Your task to perform on an android device: set default search engine in the chrome app Image 0: 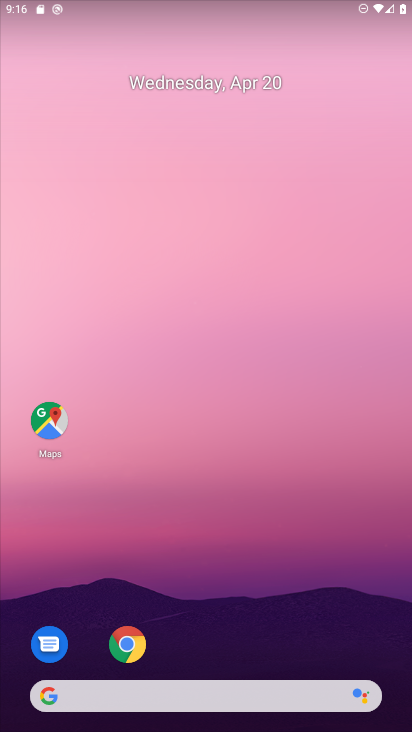
Step 0: drag from (300, 485) to (288, 292)
Your task to perform on an android device: set default search engine in the chrome app Image 1: 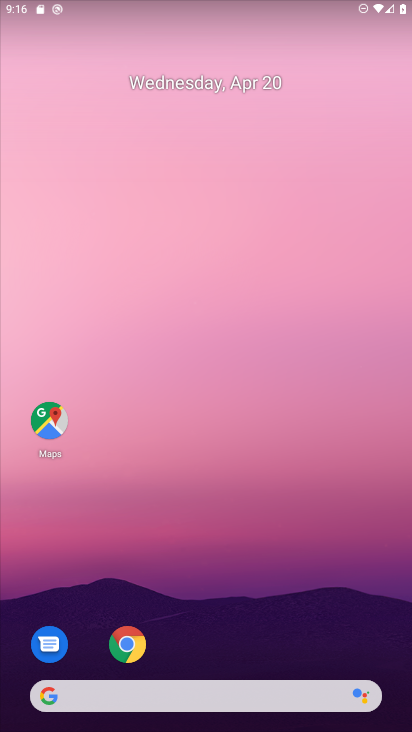
Step 1: drag from (315, 635) to (279, 76)
Your task to perform on an android device: set default search engine in the chrome app Image 2: 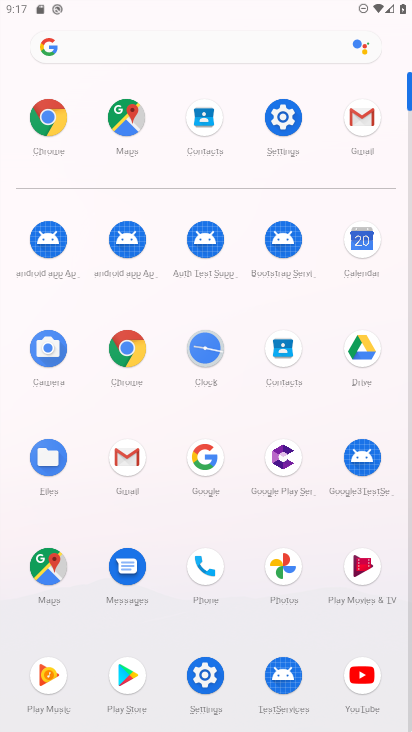
Step 2: click (134, 349)
Your task to perform on an android device: set default search engine in the chrome app Image 3: 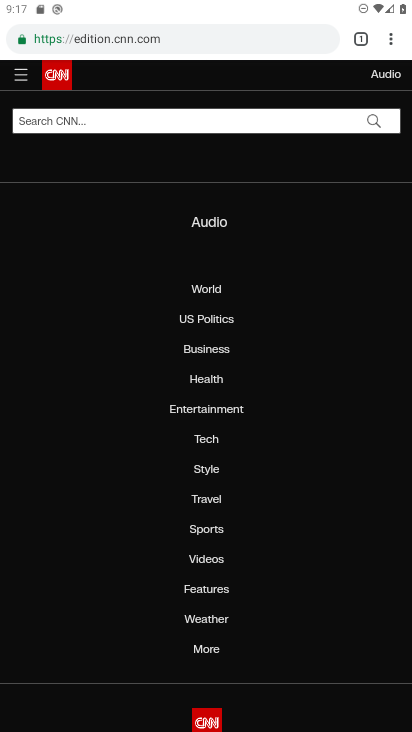
Step 3: press back button
Your task to perform on an android device: set default search engine in the chrome app Image 4: 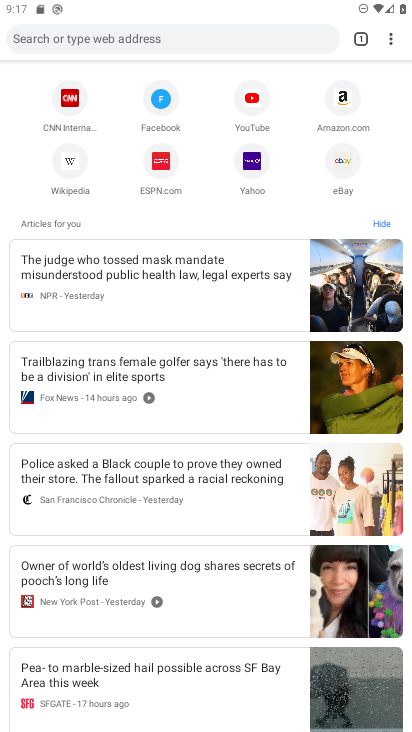
Step 4: click (392, 37)
Your task to perform on an android device: set default search engine in the chrome app Image 5: 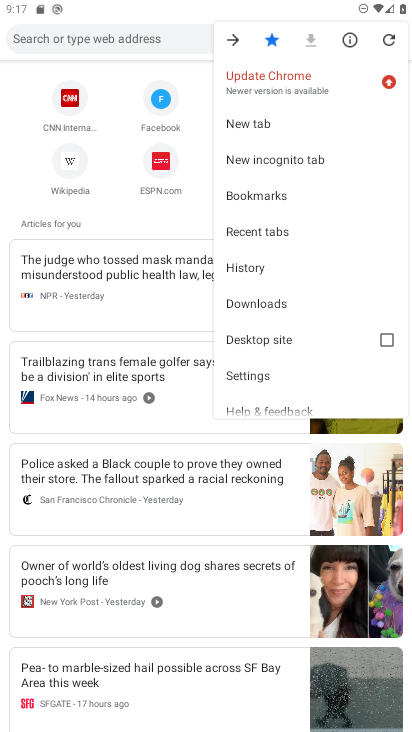
Step 5: click (275, 379)
Your task to perform on an android device: set default search engine in the chrome app Image 6: 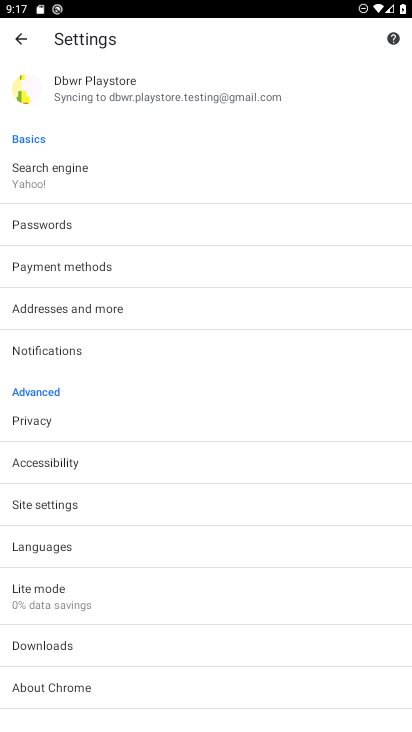
Step 6: click (56, 171)
Your task to perform on an android device: set default search engine in the chrome app Image 7: 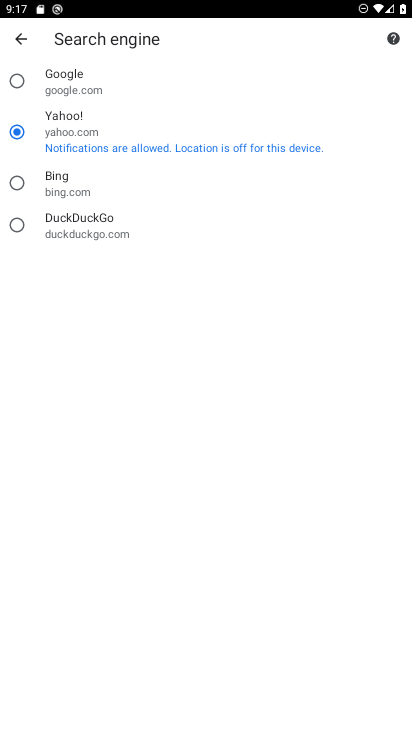
Step 7: click (85, 73)
Your task to perform on an android device: set default search engine in the chrome app Image 8: 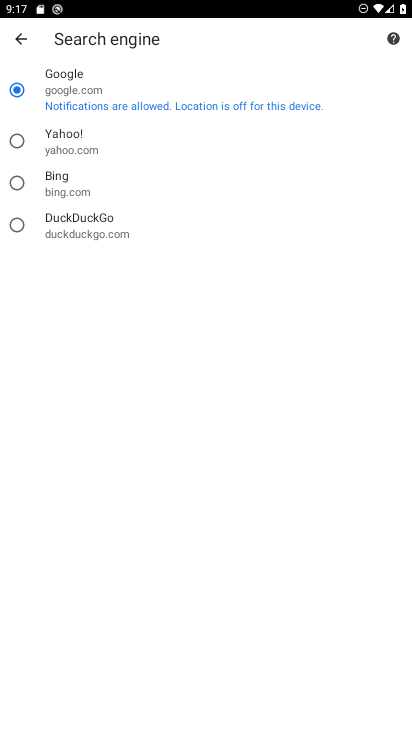
Step 8: task complete